Your task to perform on an android device: Open Chrome and go to settings Image 0: 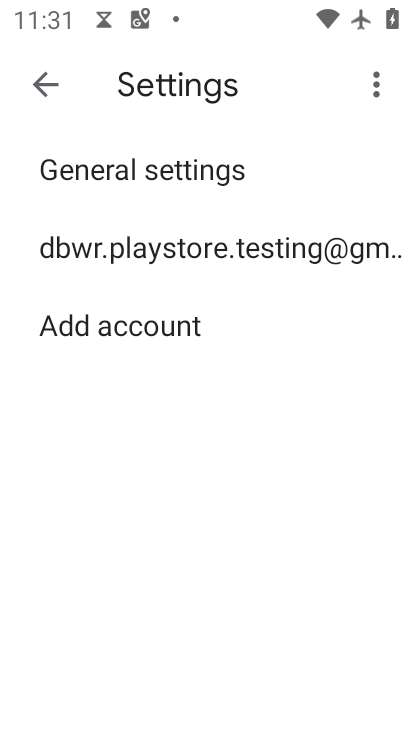
Step 0: click (235, 238)
Your task to perform on an android device: Open Chrome and go to settings Image 1: 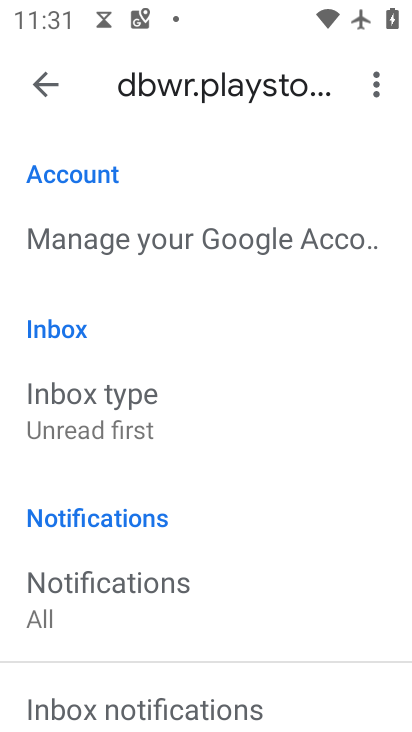
Step 1: press home button
Your task to perform on an android device: Open Chrome and go to settings Image 2: 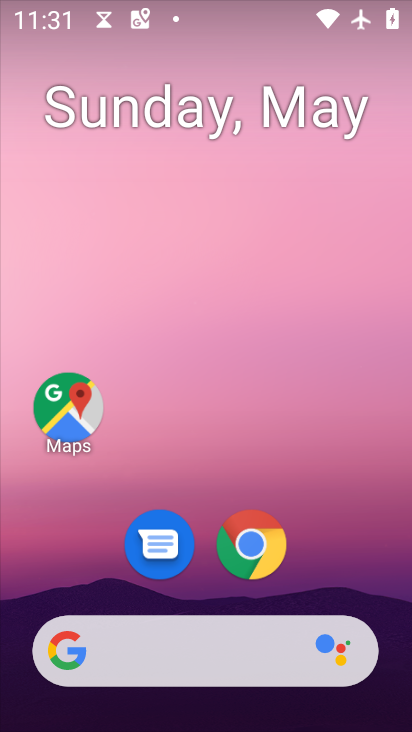
Step 2: drag from (315, 551) to (345, 181)
Your task to perform on an android device: Open Chrome and go to settings Image 3: 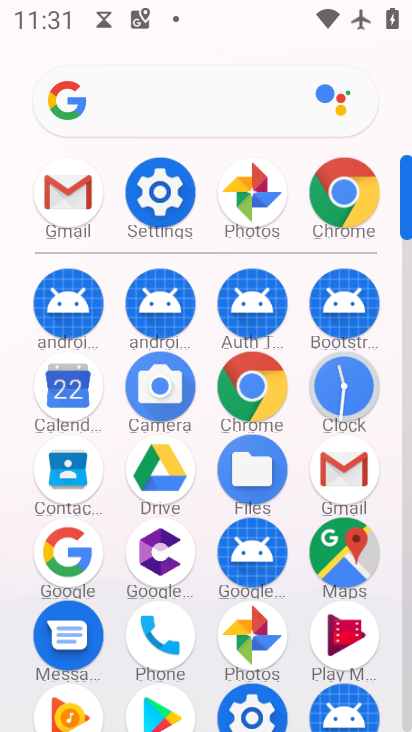
Step 3: click (248, 387)
Your task to perform on an android device: Open Chrome and go to settings Image 4: 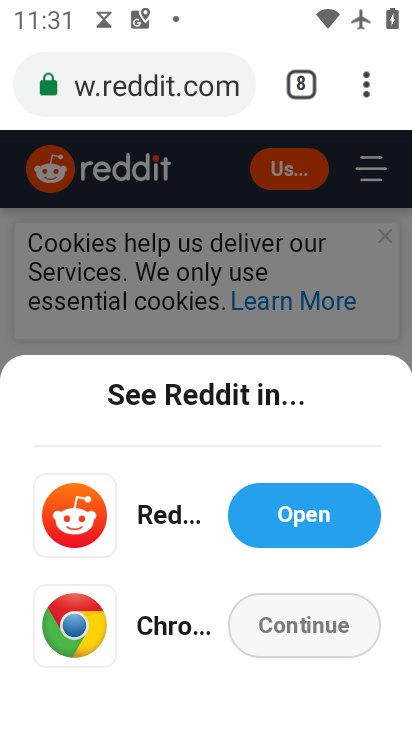
Step 4: click (360, 74)
Your task to perform on an android device: Open Chrome and go to settings Image 5: 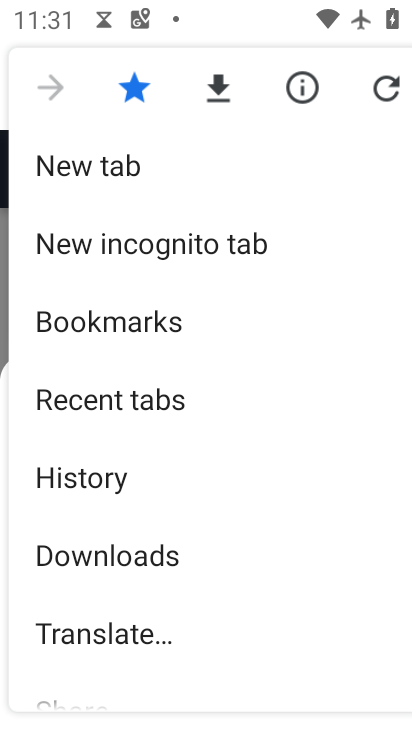
Step 5: click (161, 595)
Your task to perform on an android device: Open Chrome and go to settings Image 6: 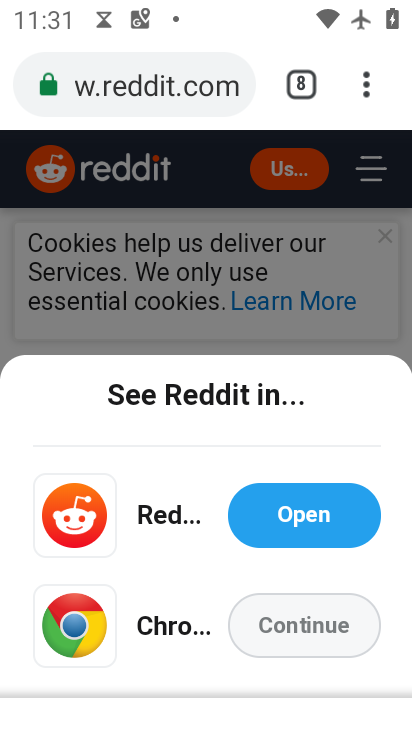
Step 6: drag from (177, 557) to (240, 388)
Your task to perform on an android device: Open Chrome and go to settings Image 7: 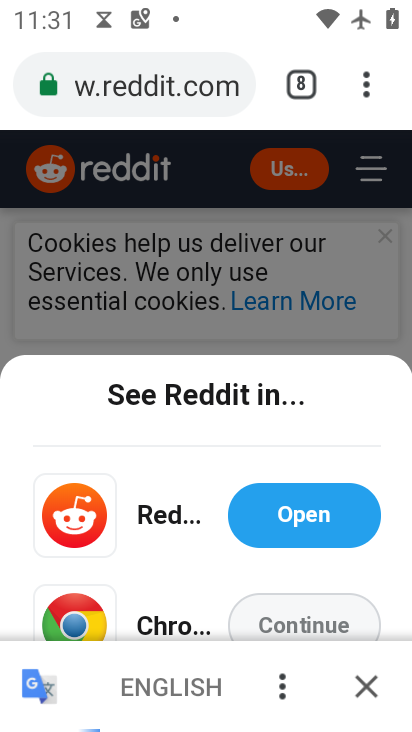
Step 7: click (361, 77)
Your task to perform on an android device: Open Chrome and go to settings Image 8: 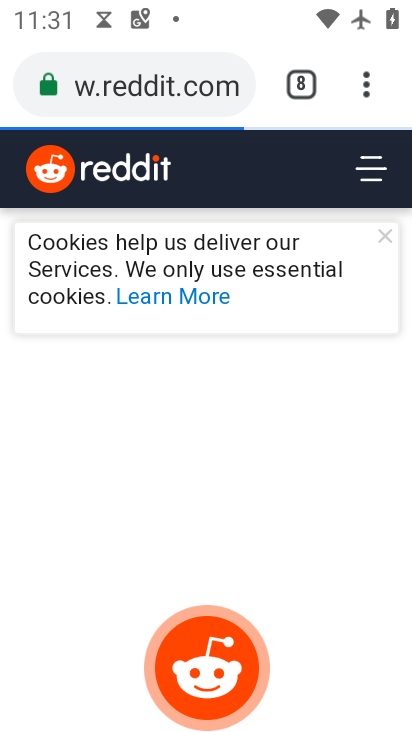
Step 8: click (364, 80)
Your task to perform on an android device: Open Chrome and go to settings Image 9: 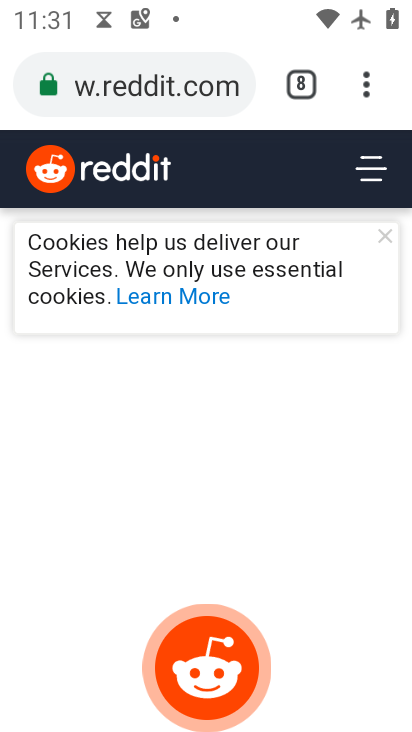
Step 9: click (364, 80)
Your task to perform on an android device: Open Chrome and go to settings Image 10: 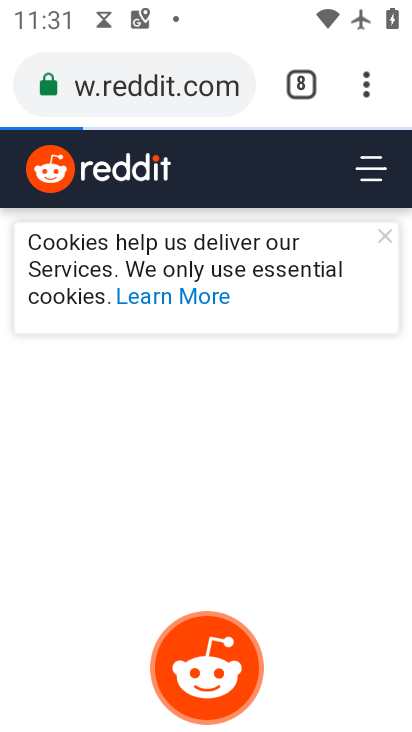
Step 10: click (364, 80)
Your task to perform on an android device: Open Chrome and go to settings Image 11: 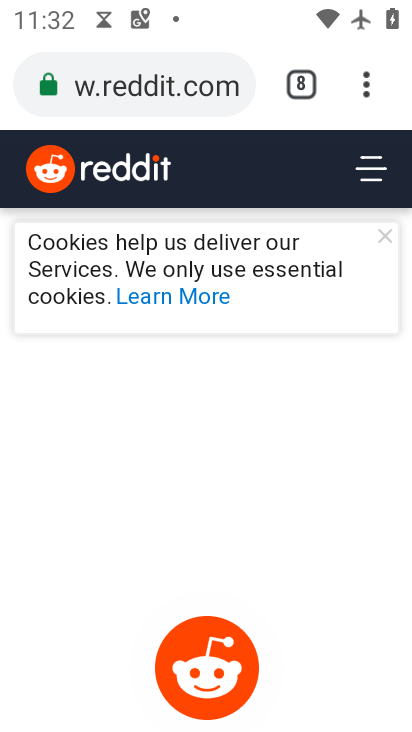
Step 11: click (374, 85)
Your task to perform on an android device: Open Chrome and go to settings Image 12: 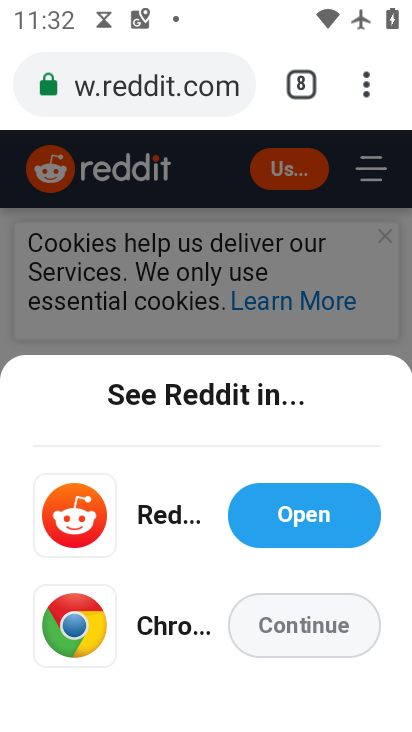
Step 12: click (372, 68)
Your task to perform on an android device: Open Chrome and go to settings Image 13: 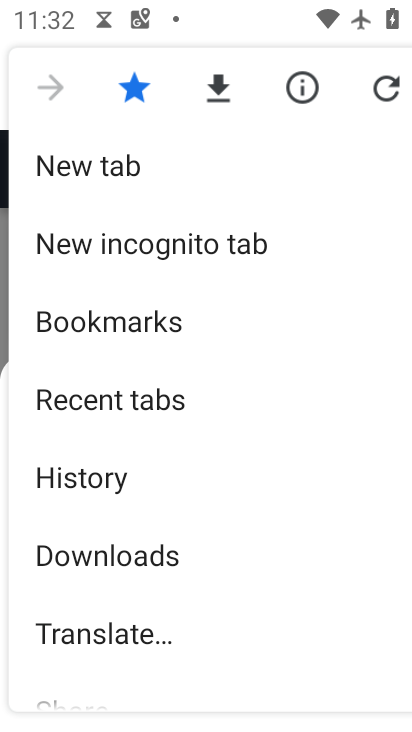
Step 13: task complete